Your task to perform on an android device: delete location history Image 0: 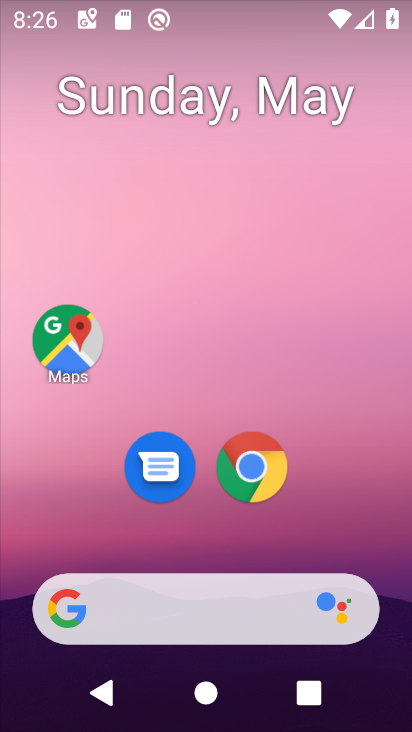
Step 0: click (279, 486)
Your task to perform on an android device: delete location history Image 1: 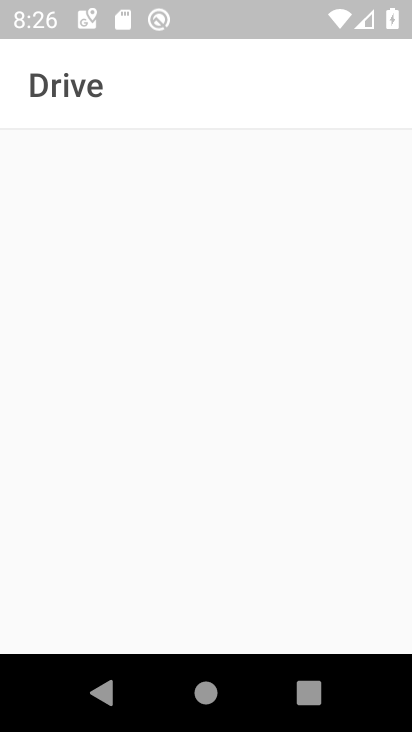
Step 1: press home button
Your task to perform on an android device: delete location history Image 2: 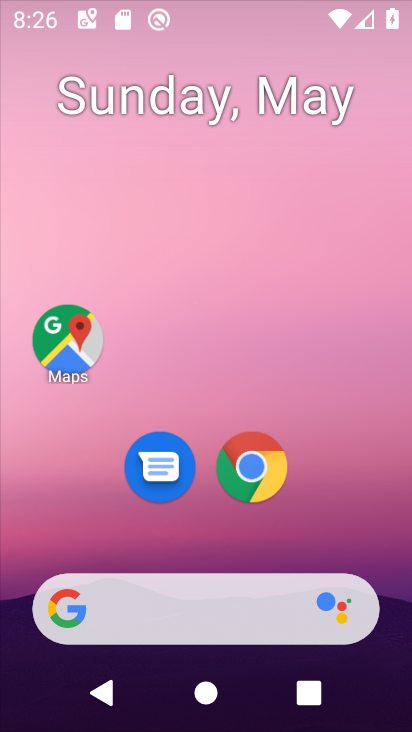
Step 2: drag from (359, 584) to (335, 157)
Your task to perform on an android device: delete location history Image 3: 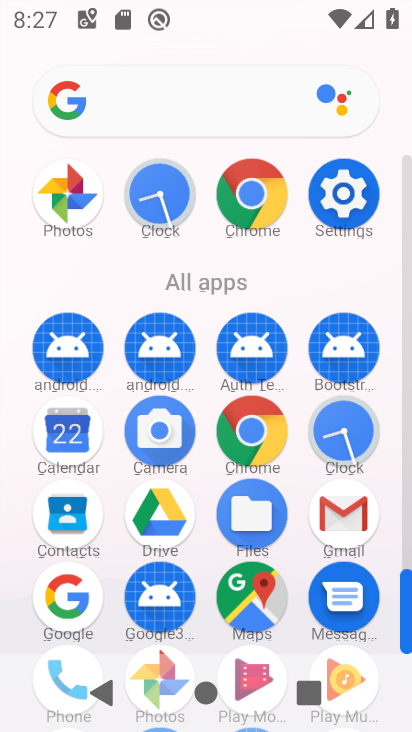
Step 3: click (341, 208)
Your task to perform on an android device: delete location history Image 4: 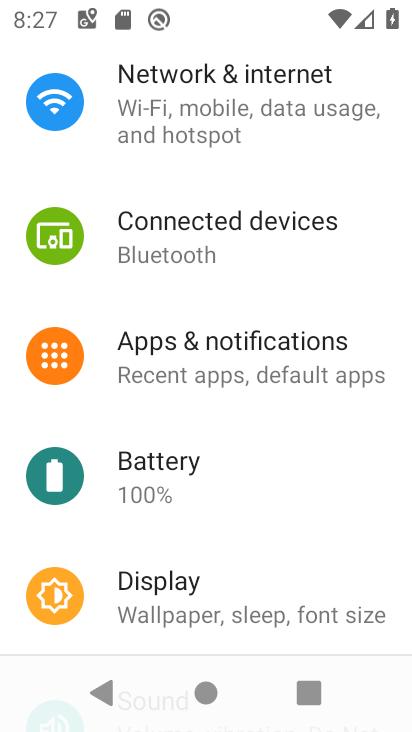
Step 4: drag from (317, 453) to (309, 191)
Your task to perform on an android device: delete location history Image 5: 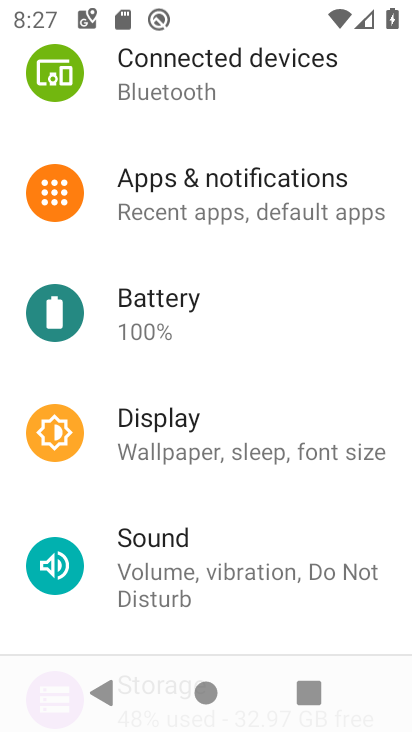
Step 5: drag from (284, 604) to (288, 288)
Your task to perform on an android device: delete location history Image 6: 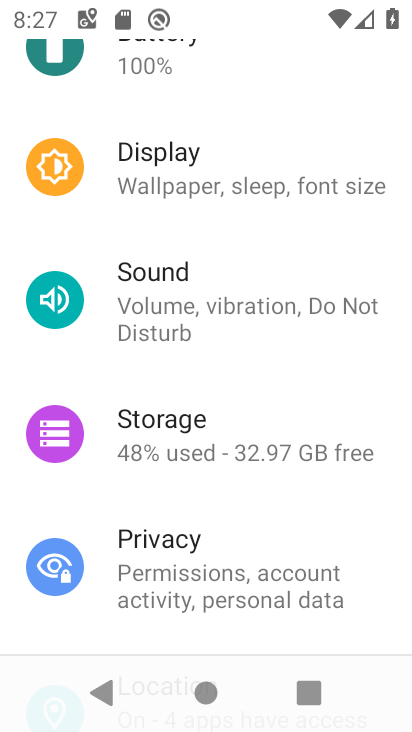
Step 6: drag from (297, 500) to (300, 250)
Your task to perform on an android device: delete location history Image 7: 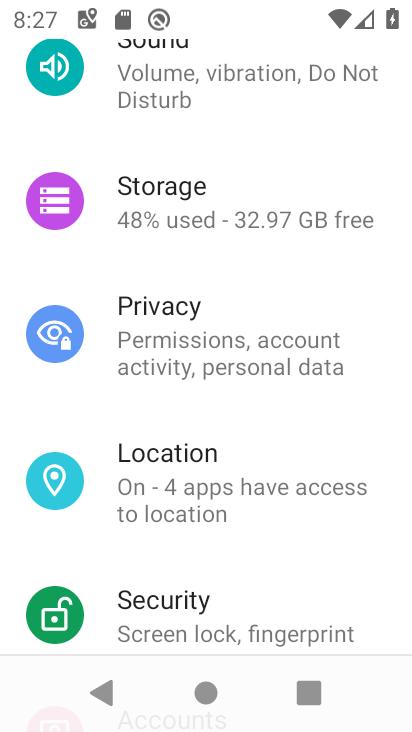
Step 7: click (232, 480)
Your task to perform on an android device: delete location history Image 8: 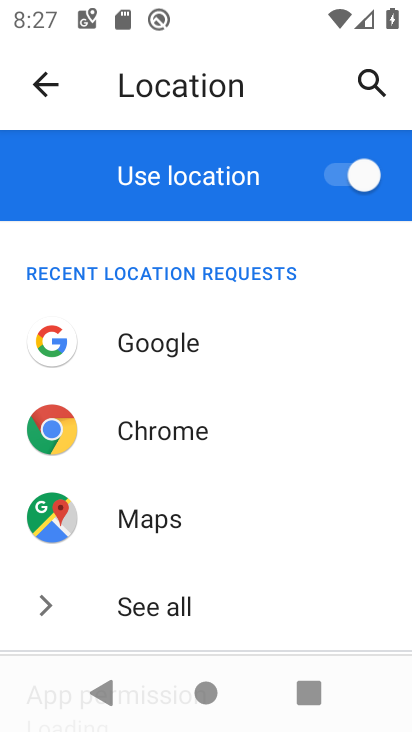
Step 8: drag from (231, 576) to (245, 263)
Your task to perform on an android device: delete location history Image 9: 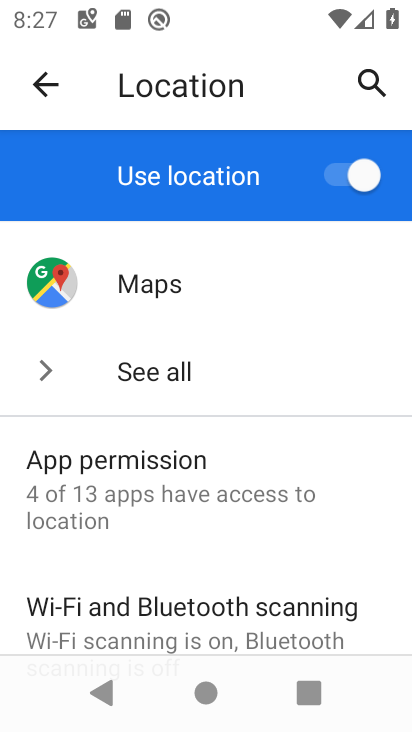
Step 9: drag from (250, 585) to (323, 207)
Your task to perform on an android device: delete location history Image 10: 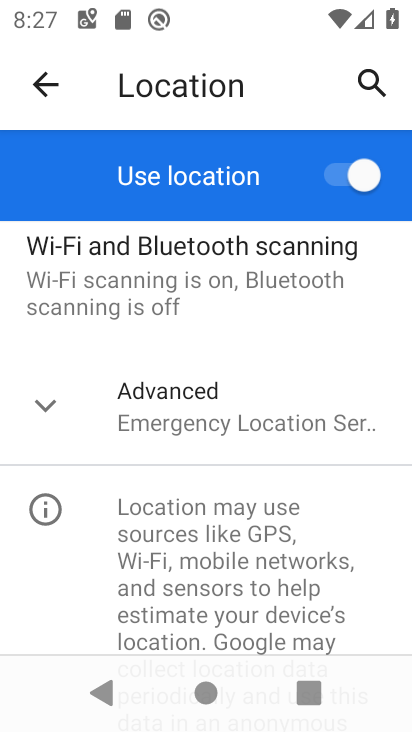
Step 10: drag from (220, 286) to (222, 636)
Your task to perform on an android device: delete location history Image 11: 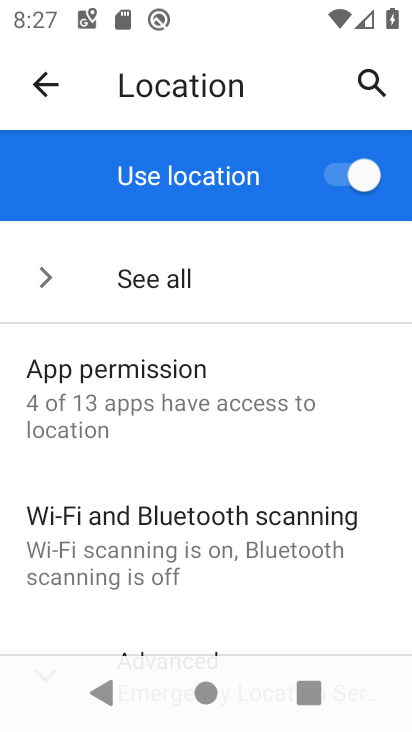
Step 11: drag from (220, 573) to (237, 233)
Your task to perform on an android device: delete location history Image 12: 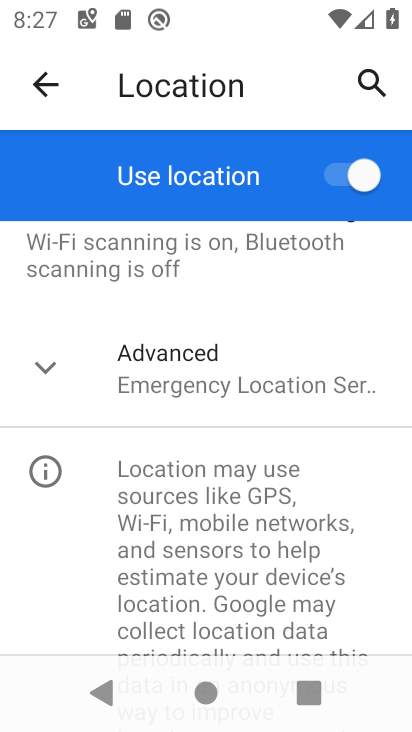
Step 12: click (219, 398)
Your task to perform on an android device: delete location history Image 13: 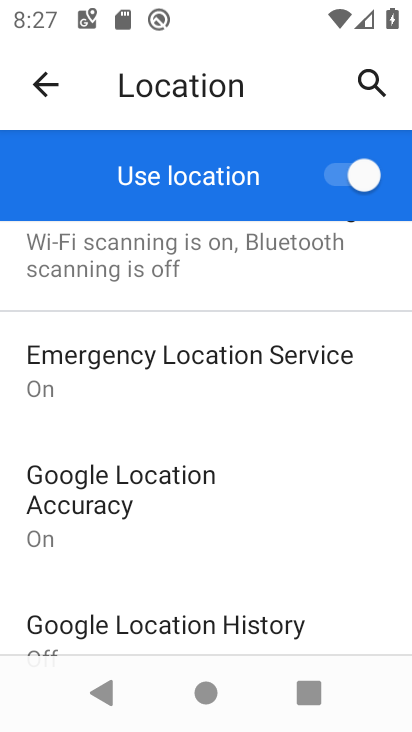
Step 13: drag from (192, 582) to (217, 337)
Your task to perform on an android device: delete location history Image 14: 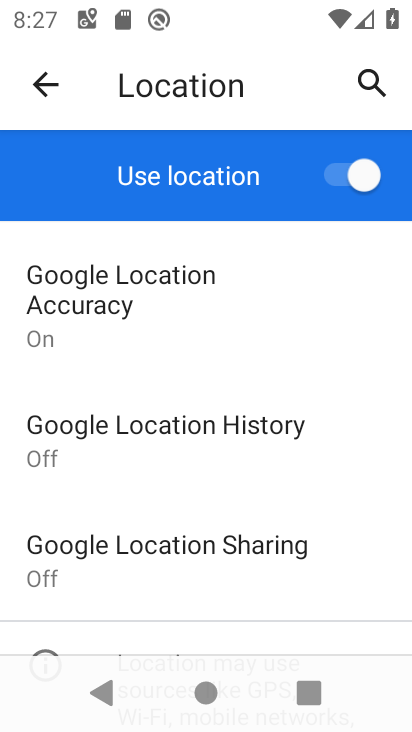
Step 14: click (202, 418)
Your task to perform on an android device: delete location history Image 15: 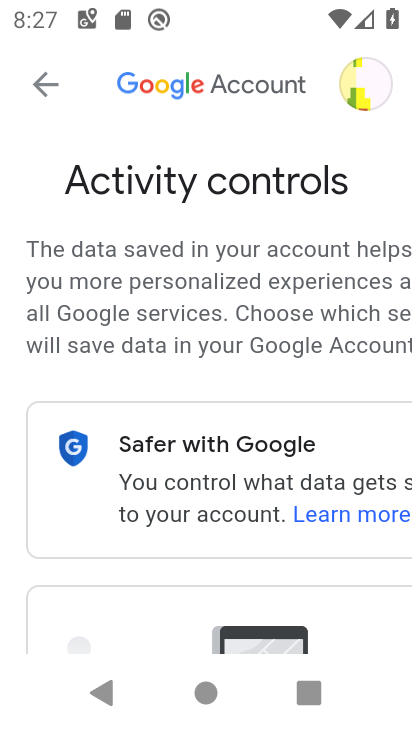
Step 15: drag from (150, 594) to (172, 217)
Your task to perform on an android device: delete location history Image 16: 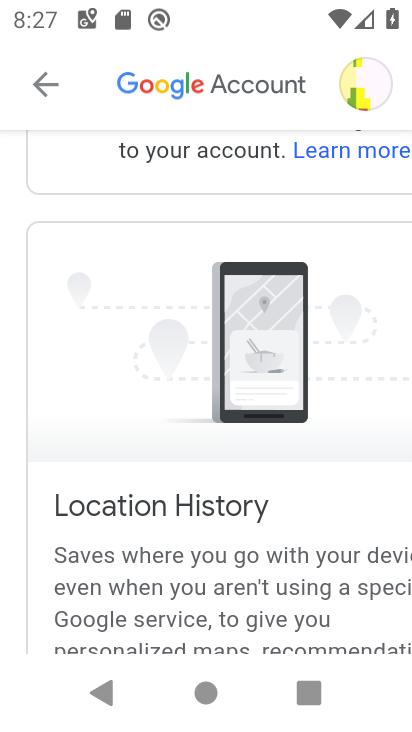
Step 16: drag from (155, 622) to (174, 245)
Your task to perform on an android device: delete location history Image 17: 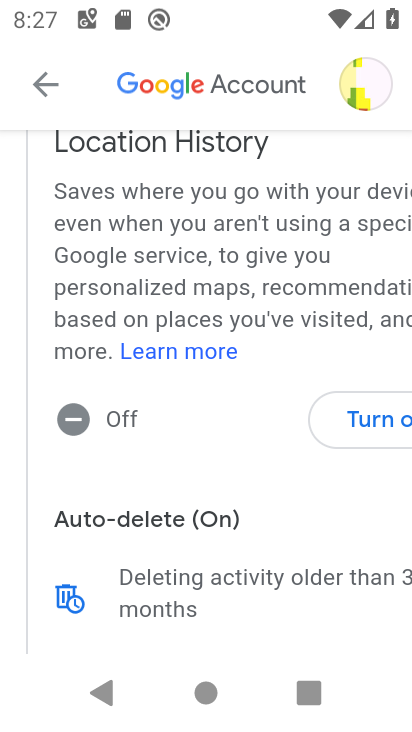
Step 17: drag from (198, 577) to (222, 262)
Your task to perform on an android device: delete location history Image 18: 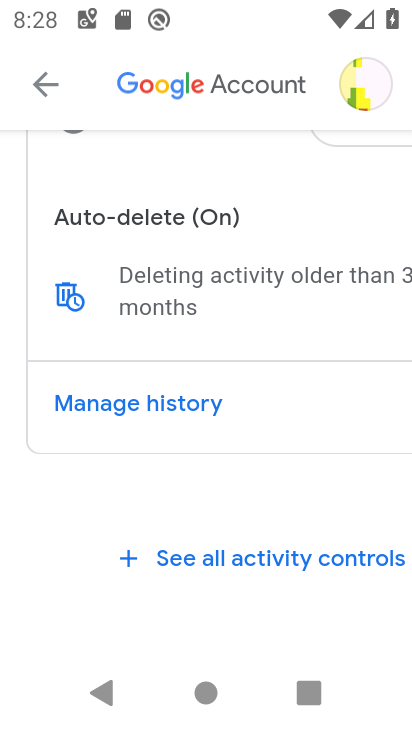
Step 18: click (130, 399)
Your task to perform on an android device: delete location history Image 19: 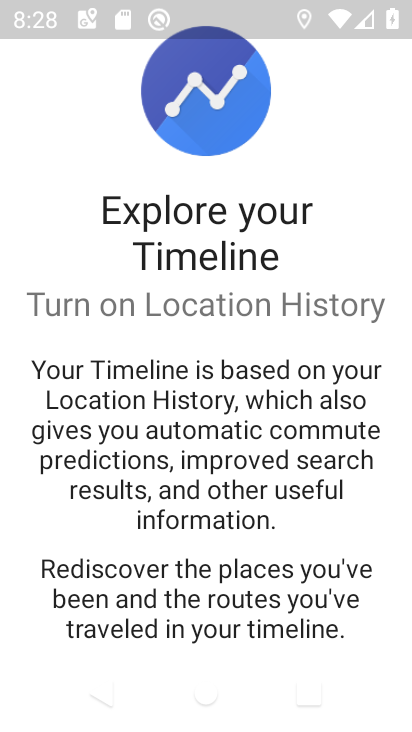
Step 19: drag from (282, 685) to (321, 318)
Your task to perform on an android device: delete location history Image 20: 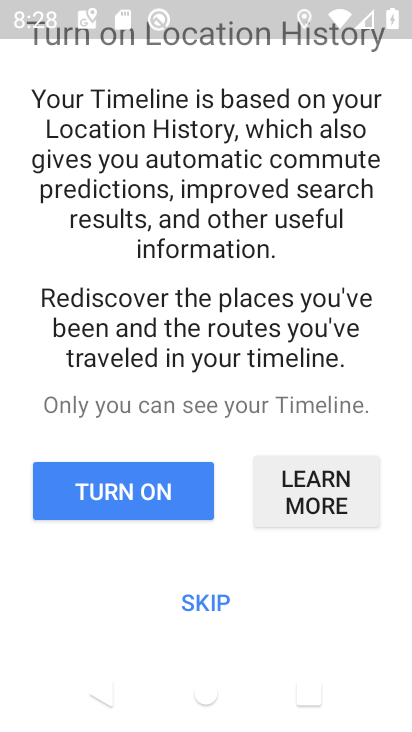
Step 20: click (204, 612)
Your task to perform on an android device: delete location history Image 21: 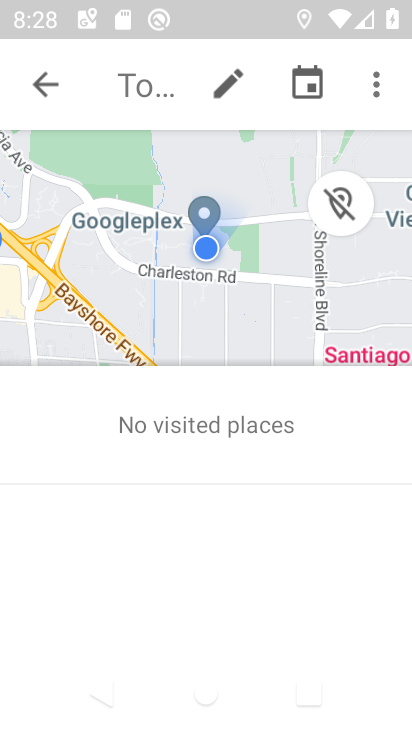
Step 21: drag from (367, 107) to (195, 554)
Your task to perform on an android device: delete location history Image 22: 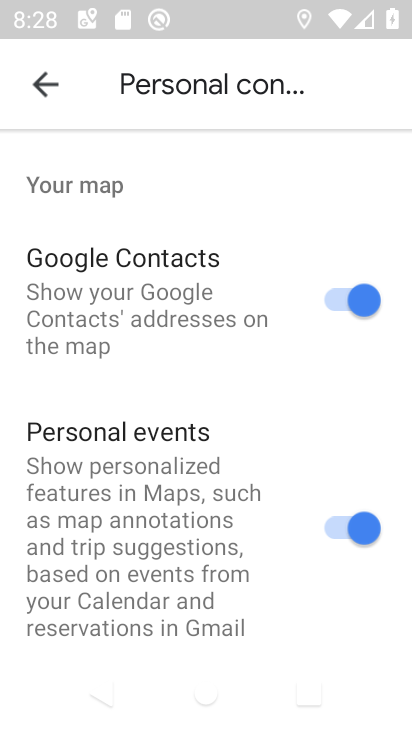
Step 22: drag from (135, 647) to (210, 298)
Your task to perform on an android device: delete location history Image 23: 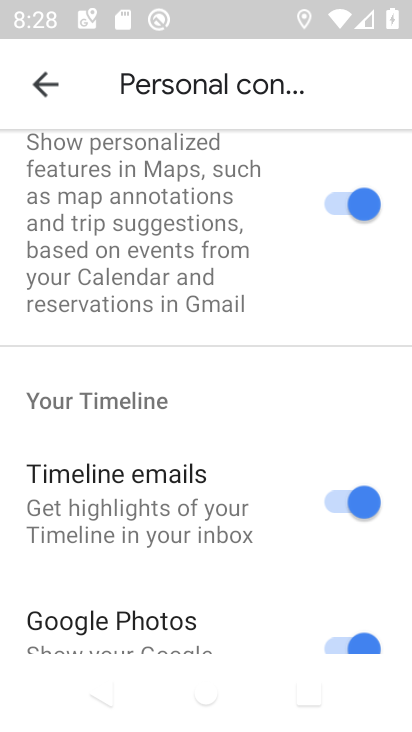
Step 23: drag from (202, 565) to (220, 234)
Your task to perform on an android device: delete location history Image 24: 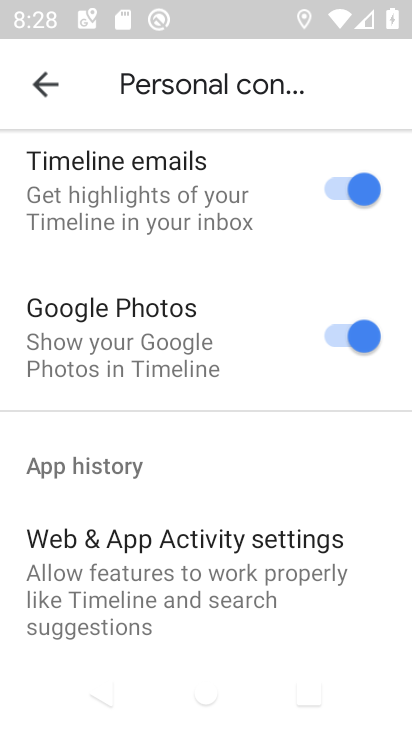
Step 24: drag from (209, 552) to (204, 171)
Your task to perform on an android device: delete location history Image 25: 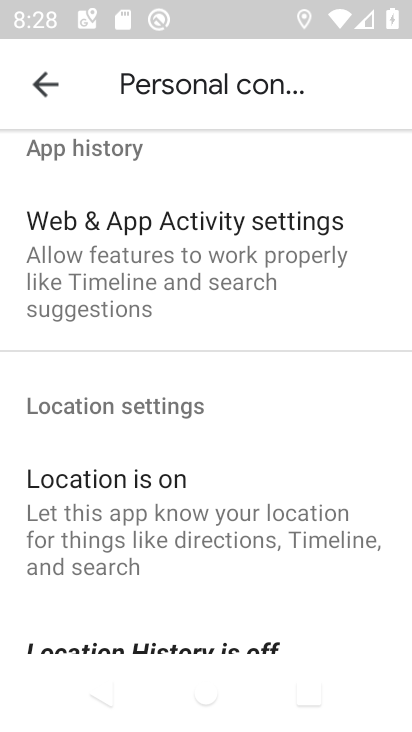
Step 25: drag from (196, 553) to (185, 211)
Your task to perform on an android device: delete location history Image 26: 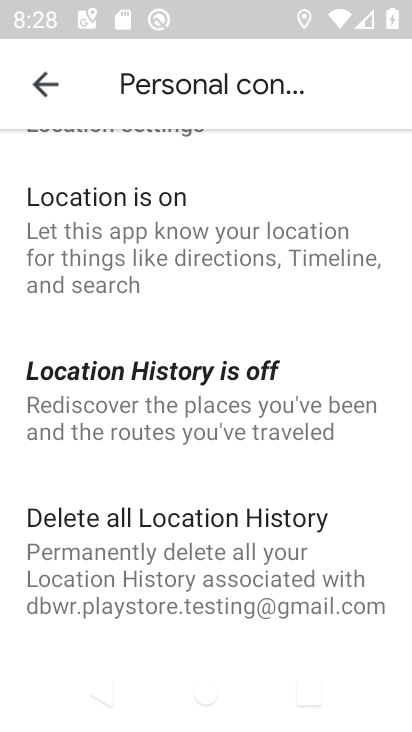
Step 26: click (207, 556)
Your task to perform on an android device: delete location history Image 27: 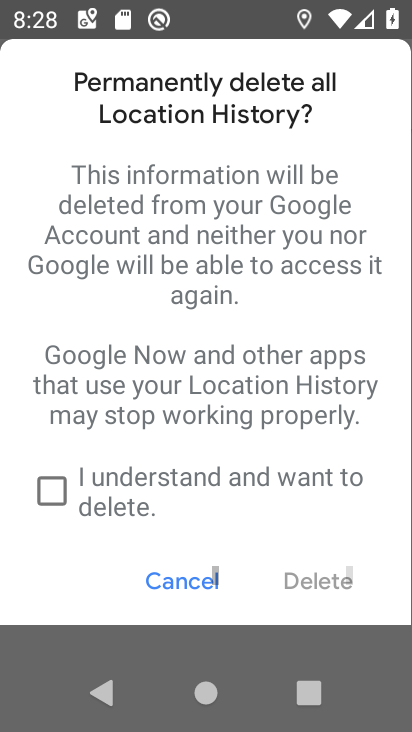
Step 27: click (32, 474)
Your task to perform on an android device: delete location history Image 28: 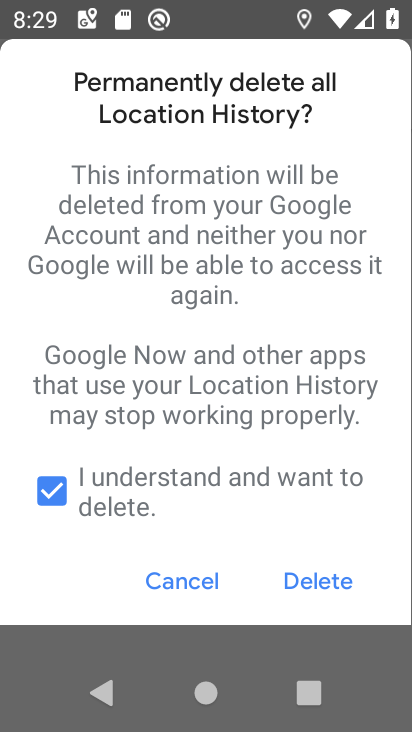
Step 28: click (318, 577)
Your task to perform on an android device: delete location history Image 29: 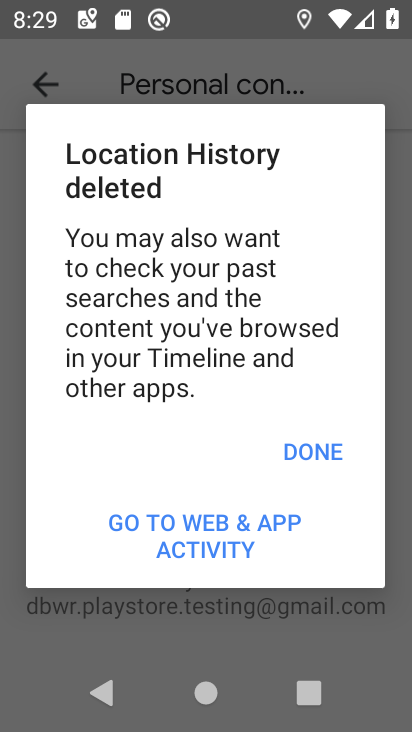
Step 29: click (299, 447)
Your task to perform on an android device: delete location history Image 30: 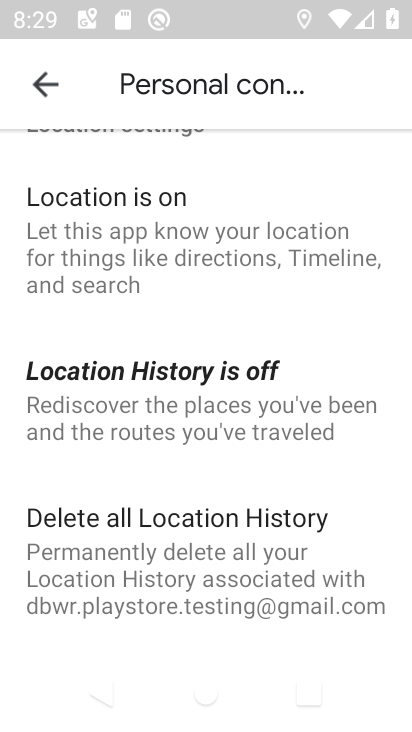
Step 30: task complete